Your task to perform on an android device: read, delete, or share a saved page in the chrome app Image 0: 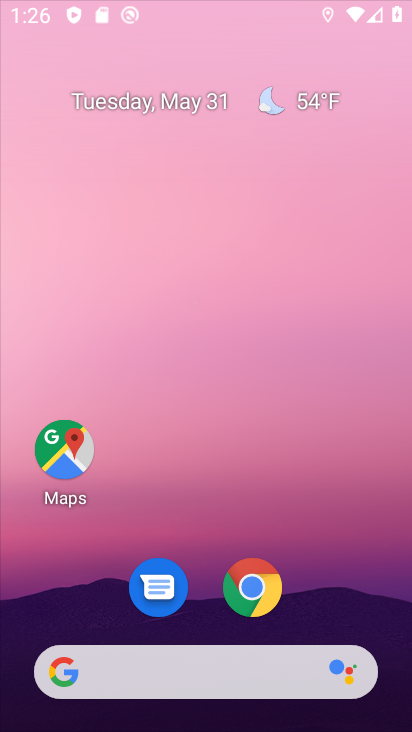
Step 0: click (249, 316)
Your task to perform on an android device: read, delete, or share a saved page in the chrome app Image 1: 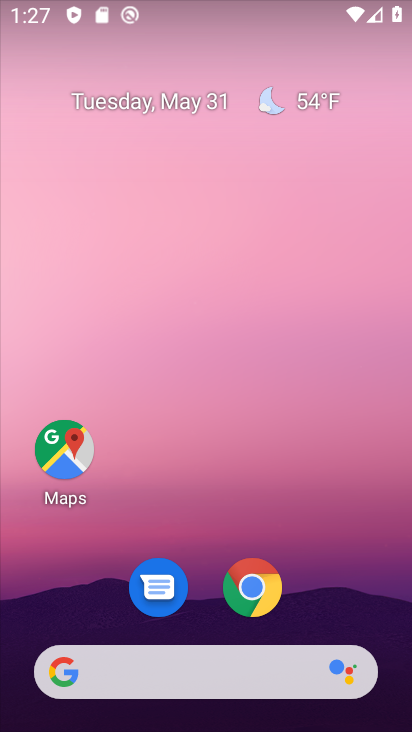
Step 1: drag from (198, 610) to (208, 42)
Your task to perform on an android device: read, delete, or share a saved page in the chrome app Image 2: 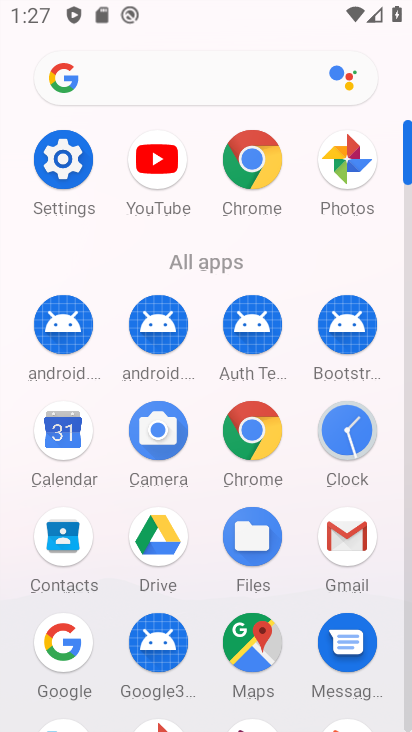
Step 2: click (236, 430)
Your task to perform on an android device: read, delete, or share a saved page in the chrome app Image 3: 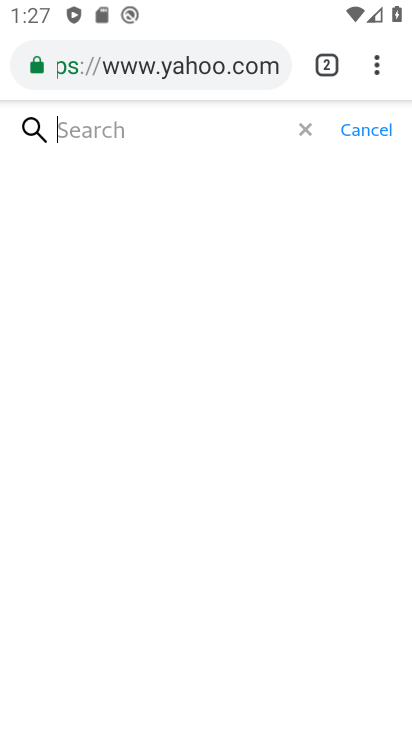
Step 3: drag from (383, 52) to (164, 254)
Your task to perform on an android device: read, delete, or share a saved page in the chrome app Image 4: 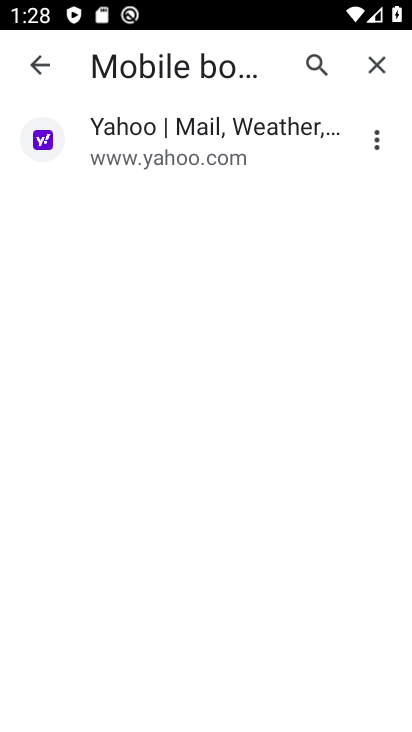
Step 4: click (239, 476)
Your task to perform on an android device: read, delete, or share a saved page in the chrome app Image 5: 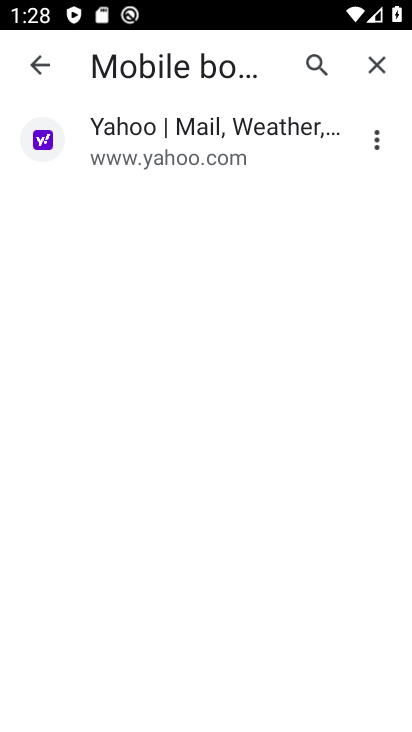
Step 5: click (210, 312)
Your task to perform on an android device: read, delete, or share a saved page in the chrome app Image 6: 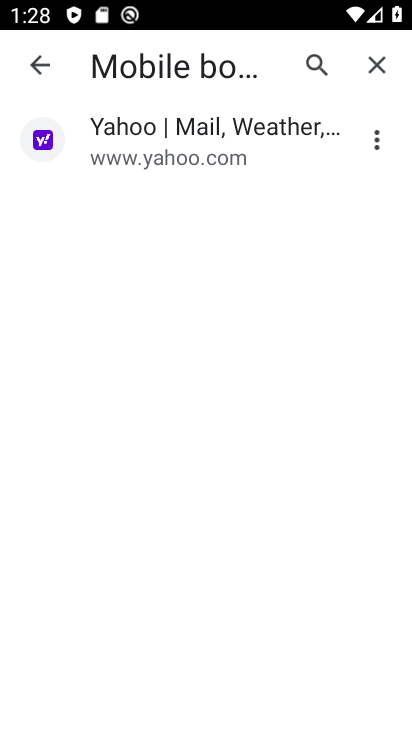
Step 6: click (210, 312)
Your task to perform on an android device: read, delete, or share a saved page in the chrome app Image 7: 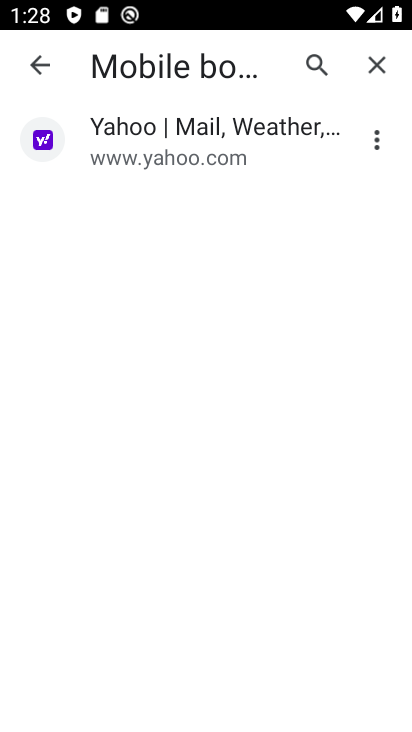
Step 7: click (210, 312)
Your task to perform on an android device: read, delete, or share a saved page in the chrome app Image 8: 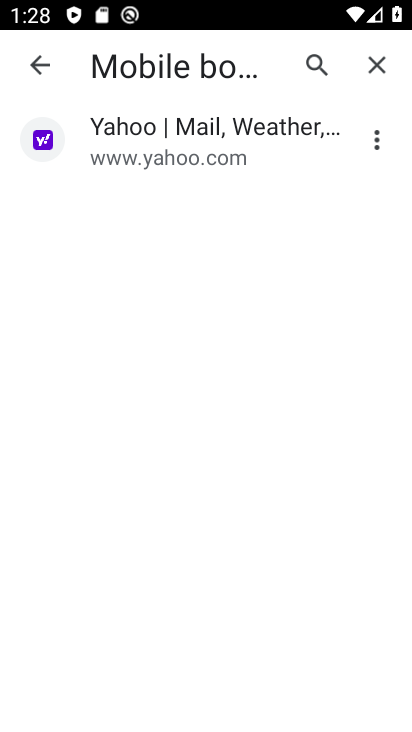
Step 8: press home button
Your task to perform on an android device: read, delete, or share a saved page in the chrome app Image 9: 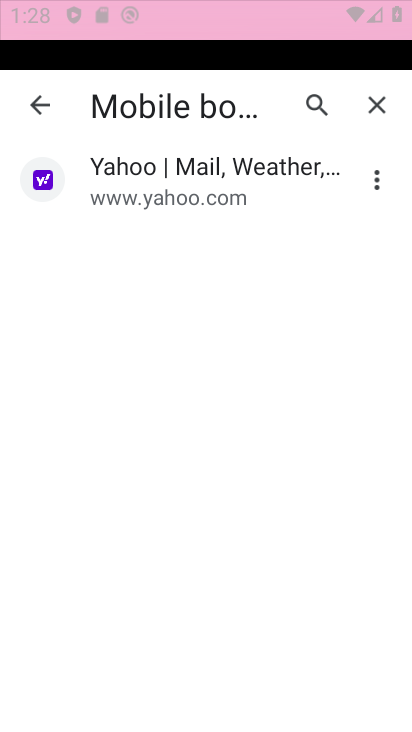
Step 9: drag from (185, 640) to (298, 114)
Your task to perform on an android device: read, delete, or share a saved page in the chrome app Image 10: 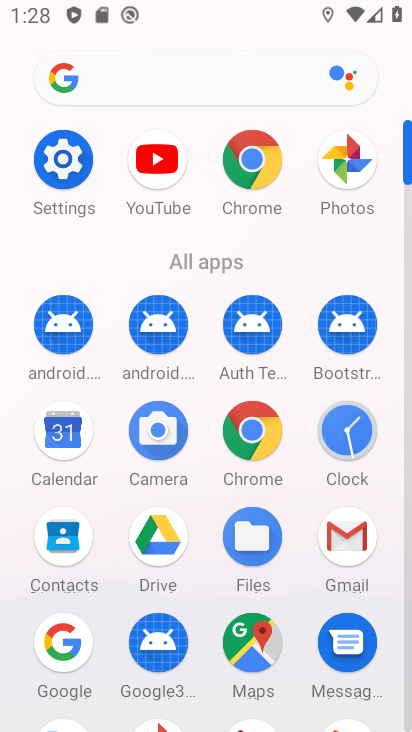
Step 10: click (249, 431)
Your task to perform on an android device: read, delete, or share a saved page in the chrome app Image 11: 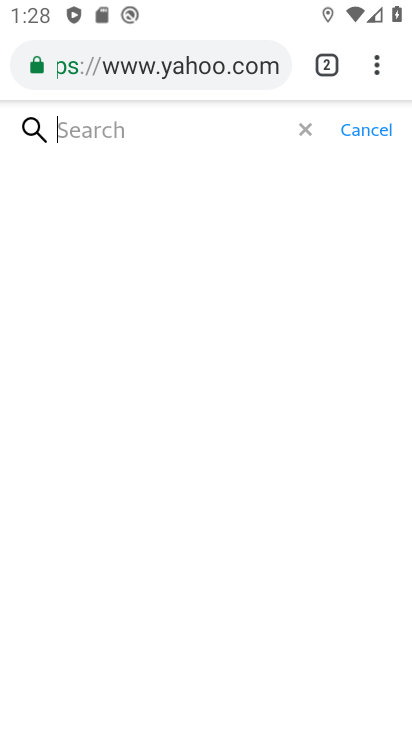
Step 11: task complete